Your task to perform on an android device: refresh tabs in the chrome app Image 0: 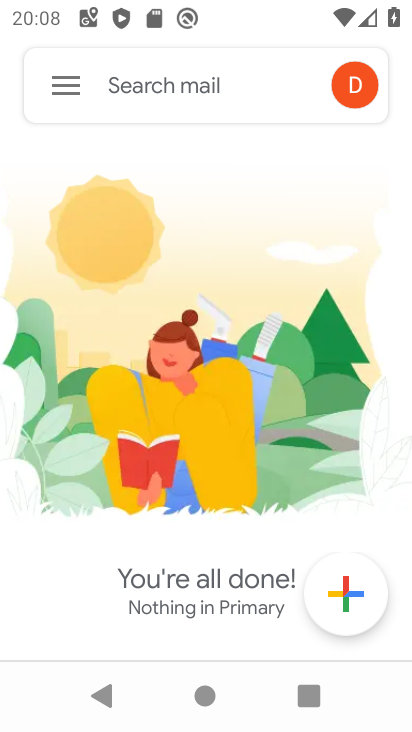
Step 0: press home button
Your task to perform on an android device: refresh tabs in the chrome app Image 1: 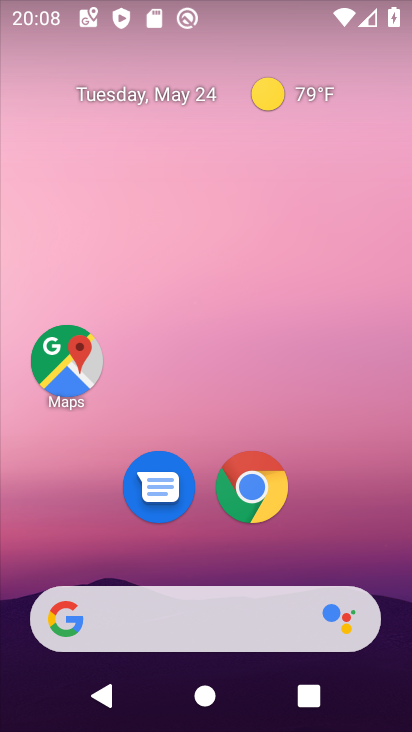
Step 1: click (245, 481)
Your task to perform on an android device: refresh tabs in the chrome app Image 2: 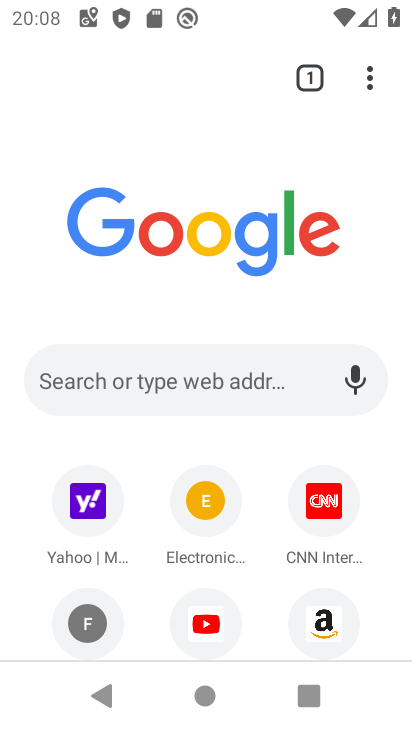
Step 2: click (380, 74)
Your task to perform on an android device: refresh tabs in the chrome app Image 3: 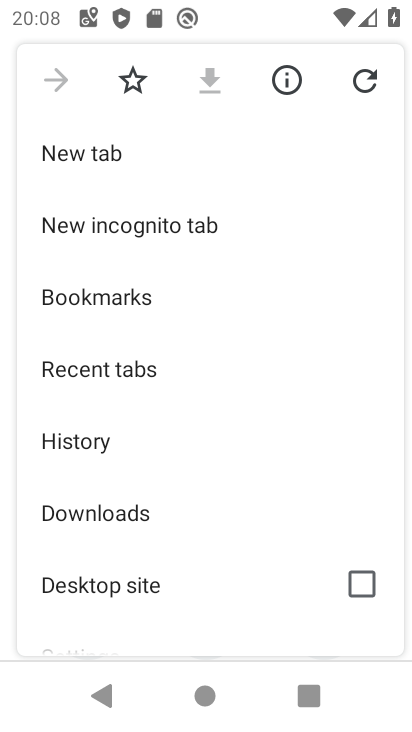
Step 3: click (376, 79)
Your task to perform on an android device: refresh tabs in the chrome app Image 4: 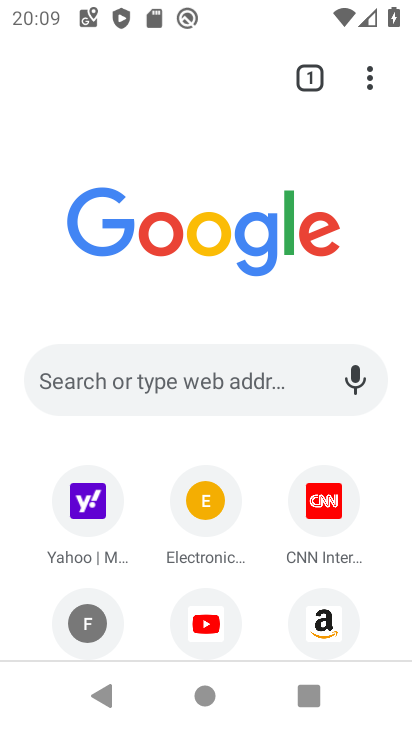
Step 4: task complete